Your task to perform on an android device: Show me productivity apps on the Play Store Image 0: 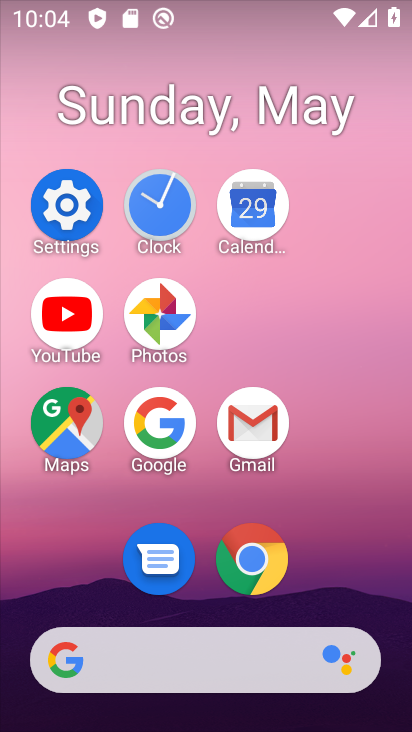
Step 0: drag from (360, 573) to (310, 28)
Your task to perform on an android device: Show me productivity apps on the Play Store Image 1: 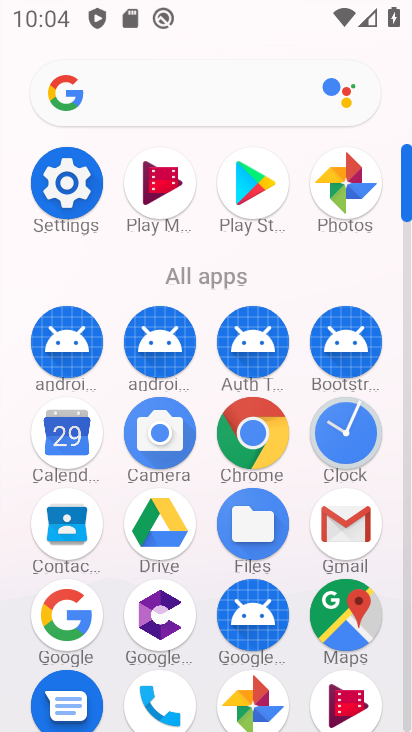
Step 1: drag from (193, 587) to (136, 214)
Your task to perform on an android device: Show me productivity apps on the Play Store Image 2: 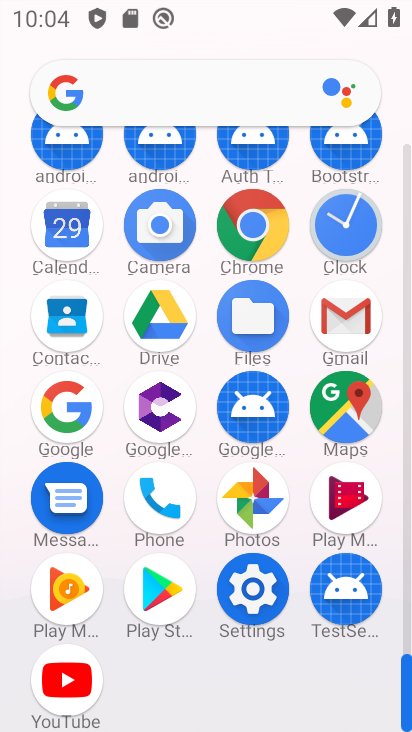
Step 2: click (157, 602)
Your task to perform on an android device: Show me productivity apps on the Play Store Image 3: 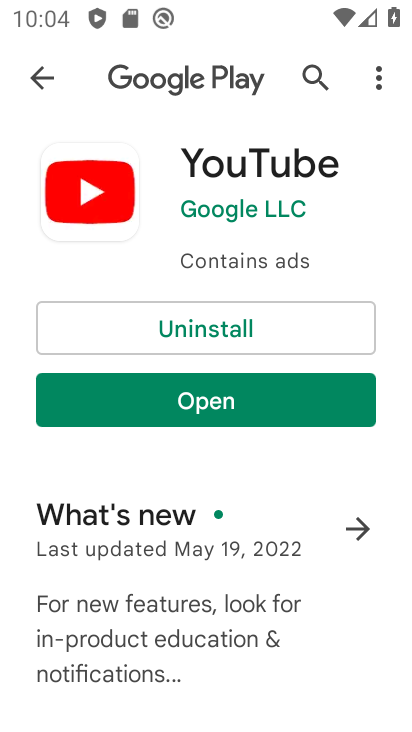
Step 3: click (23, 90)
Your task to perform on an android device: Show me productivity apps on the Play Store Image 4: 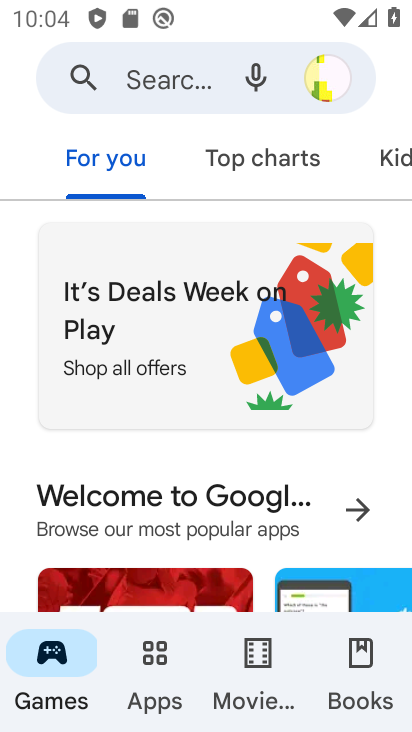
Step 4: click (152, 676)
Your task to perform on an android device: Show me productivity apps on the Play Store Image 5: 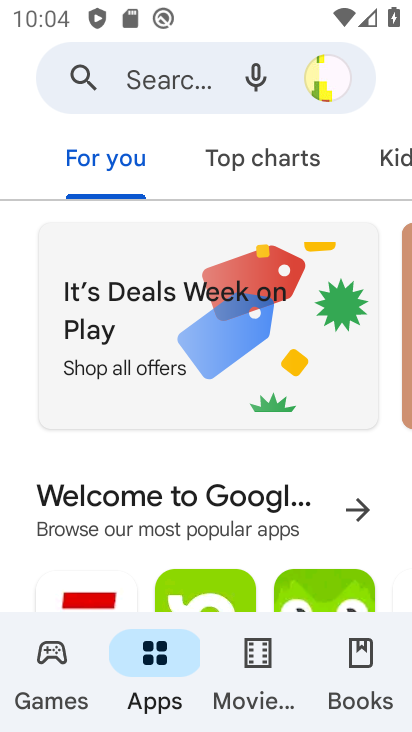
Step 5: click (383, 150)
Your task to perform on an android device: Show me productivity apps on the Play Store Image 6: 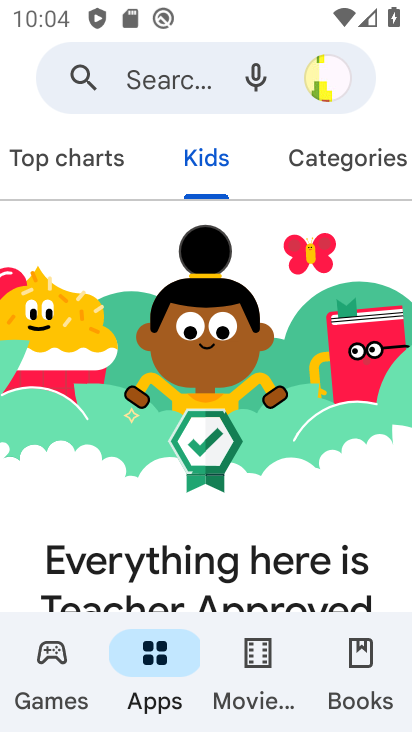
Step 6: click (379, 151)
Your task to perform on an android device: Show me productivity apps on the Play Store Image 7: 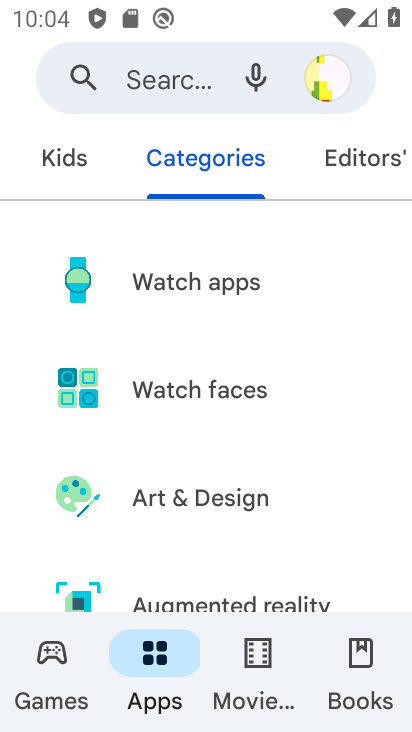
Step 7: drag from (293, 589) to (279, 85)
Your task to perform on an android device: Show me productivity apps on the Play Store Image 8: 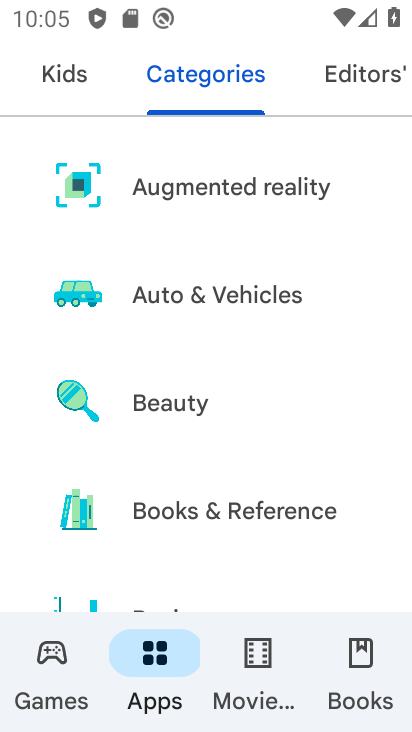
Step 8: drag from (298, 518) to (292, 40)
Your task to perform on an android device: Show me productivity apps on the Play Store Image 9: 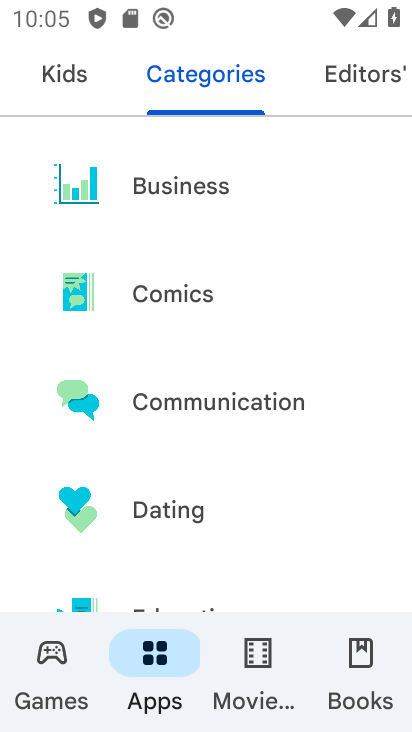
Step 9: drag from (282, 593) to (304, 89)
Your task to perform on an android device: Show me productivity apps on the Play Store Image 10: 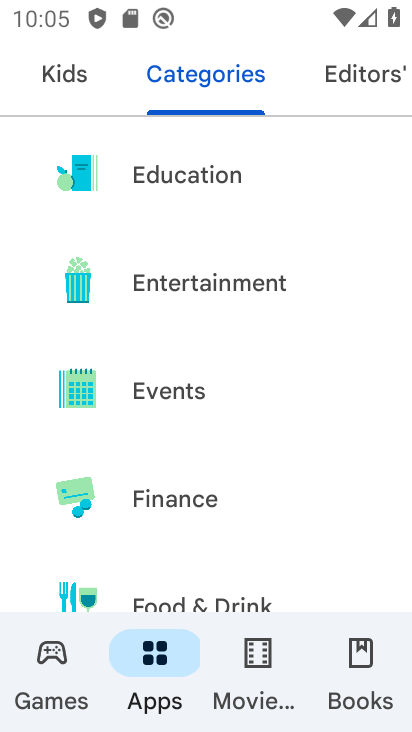
Step 10: drag from (303, 565) to (324, 100)
Your task to perform on an android device: Show me productivity apps on the Play Store Image 11: 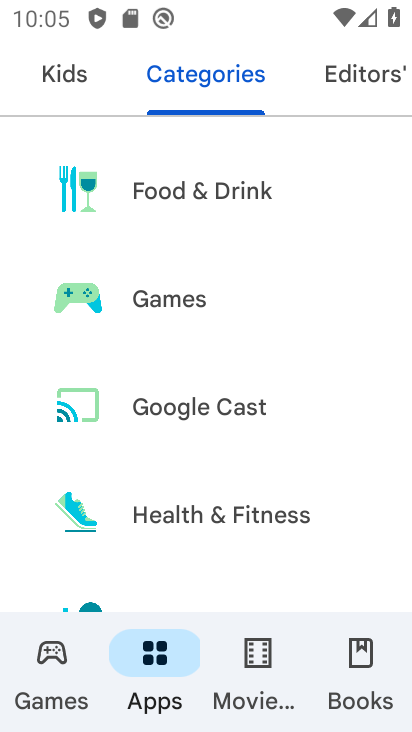
Step 11: drag from (300, 558) to (301, 163)
Your task to perform on an android device: Show me productivity apps on the Play Store Image 12: 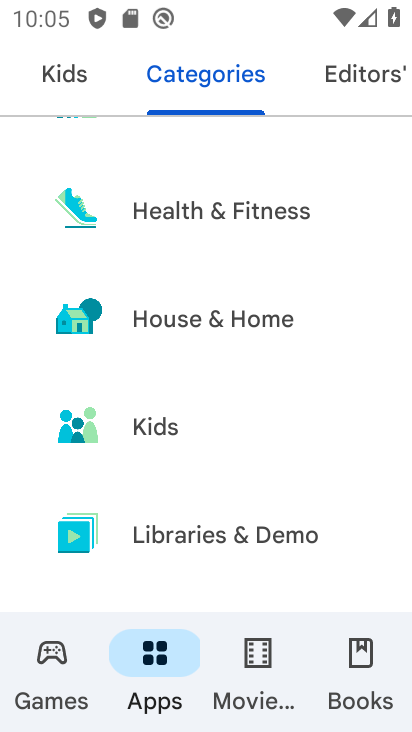
Step 12: drag from (265, 572) to (266, 125)
Your task to perform on an android device: Show me productivity apps on the Play Store Image 13: 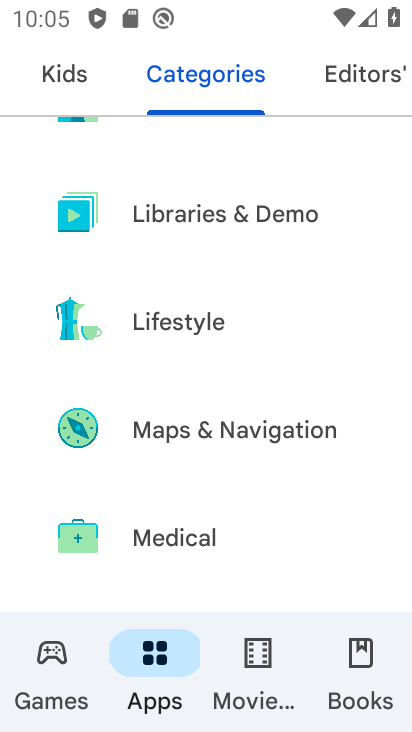
Step 13: drag from (276, 572) to (290, 169)
Your task to perform on an android device: Show me productivity apps on the Play Store Image 14: 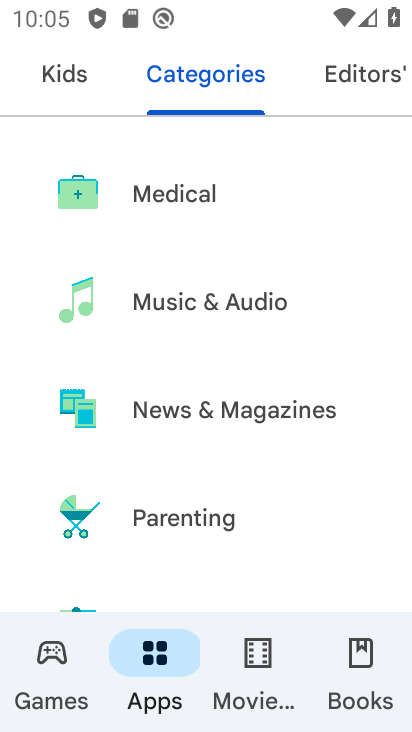
Step 14: drag from (277, 590) to (304, 172)
Your task to perform on an android device: Show me productivity apps on the Play Store Image 15: 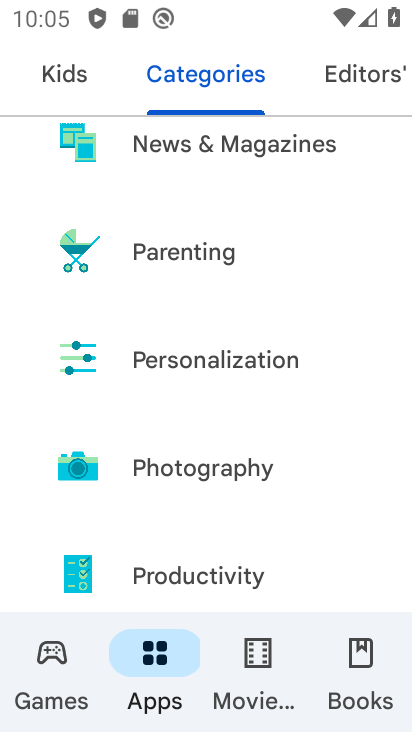
Step 15: click (254, 568)
Your task to perform on an android device: Show me productivity apps on the Play Store Image 16: 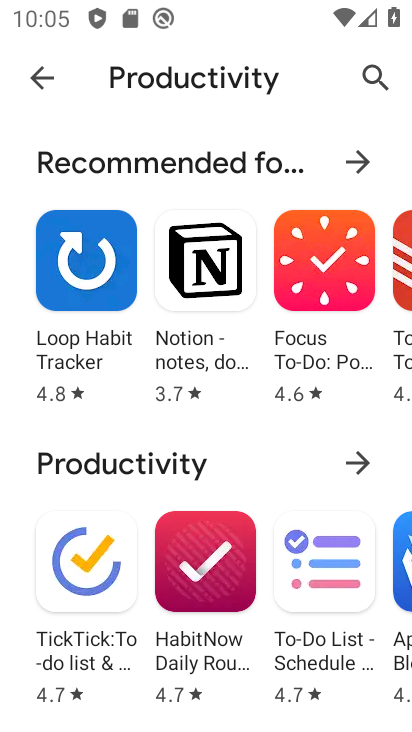
Step 16: task complete